Your task to perform on an android device: Toggle the flashlight Image 0: 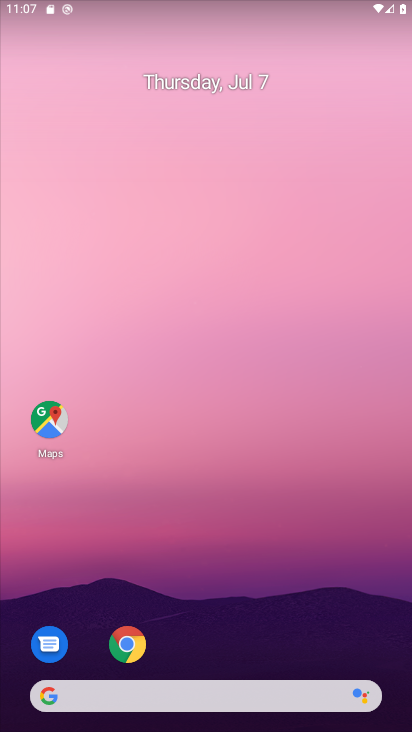
Step 0: drag from (207, 3) to (205, 457)
Your task to perform on an android device: Toggle the flashlight Image 1: 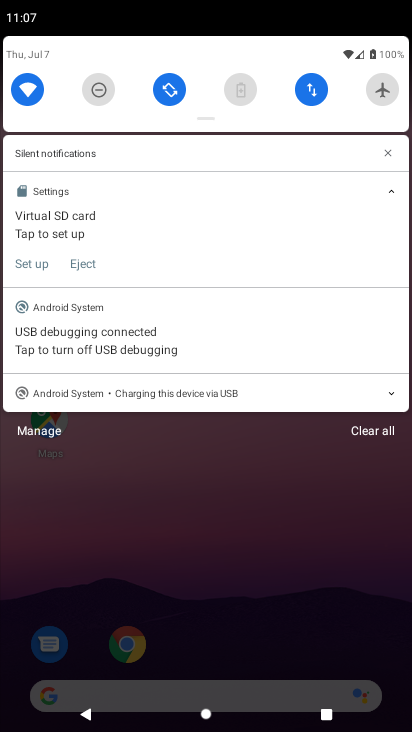
Step 1: task complete